Your task to perform on an android device: change the clock display to digital Image 0: 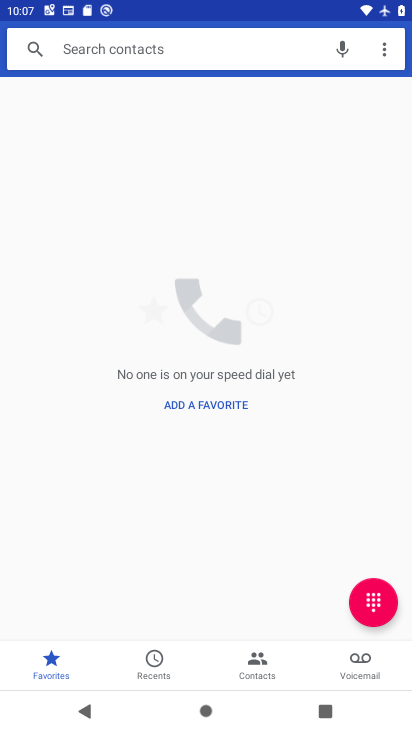
Step 0: press home button
Your task to perform on an android device: change the clock display to digital Image 1: 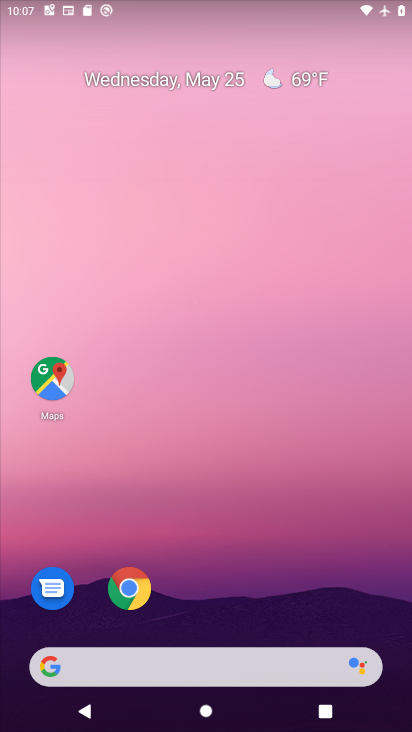
Step 1: drag from (377, 610) to (373, 187)
Your task to perform on an android device: change the clock display to digital Image 2: 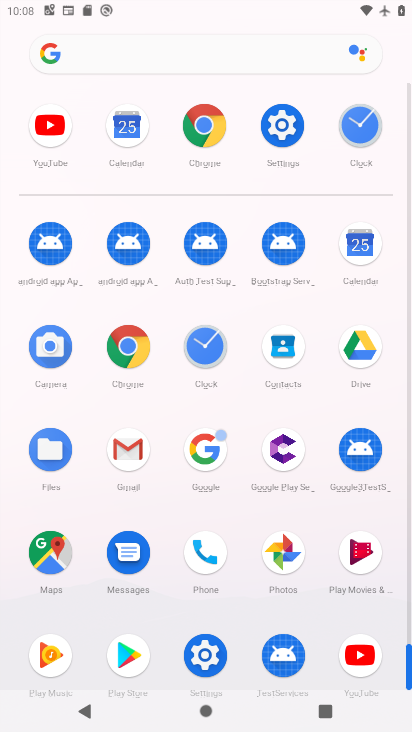
Step 2: click (215, 356)
Your task to perform on an android device: change the clock display to digital Image 3: 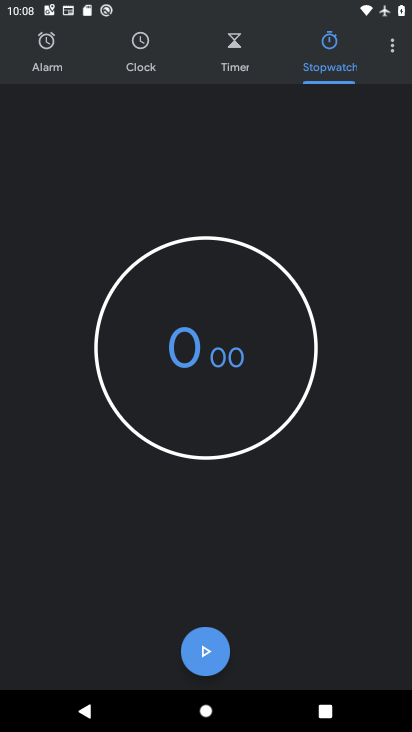
Step 3: click (394, 50)
Your task to perform on an android device: change the clock display to digital Image 4: 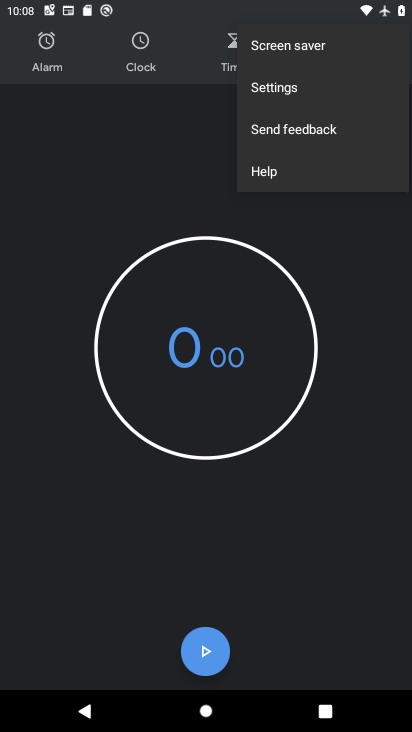
Step 4: click (303, 89)
Your task to perform on an android device: change the clock display to digital Image 5: 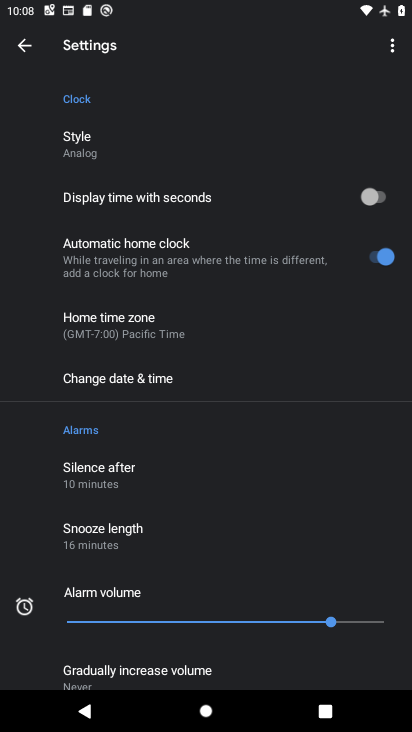
Step 5: drag from (315, 387) to (320, 345)
Your task to perform on an android device: change the clock display to digital Image 6: 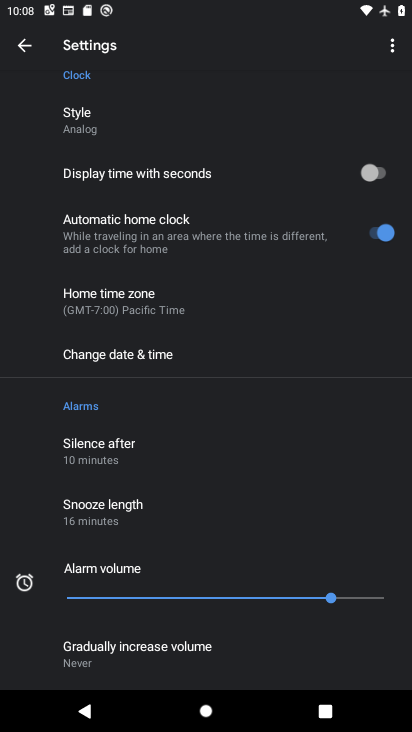
Step 6: drag from (320, 431) to (337, 342)
Your task to perform on an android device: change the clock display to digital Image 7: 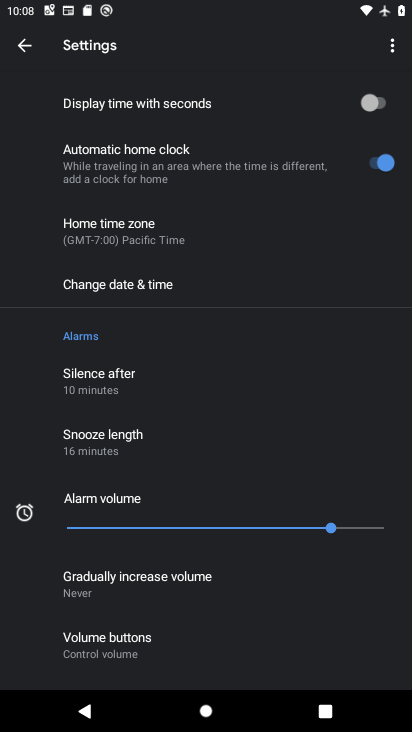
Step 7: drag from (331, 424) to (324, 322)
Your task to perform on an android device: change the clock display to digital Image 8: 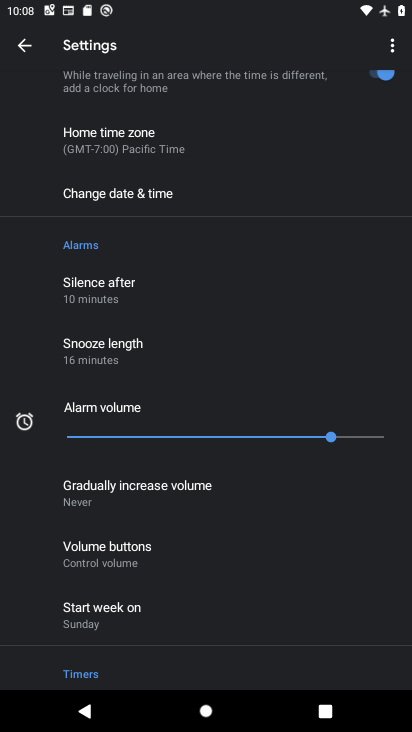
Step 8: drag from (318, 533) to (337, 351)
Your task to perform on an android device: change the clock display to digital Image 9: 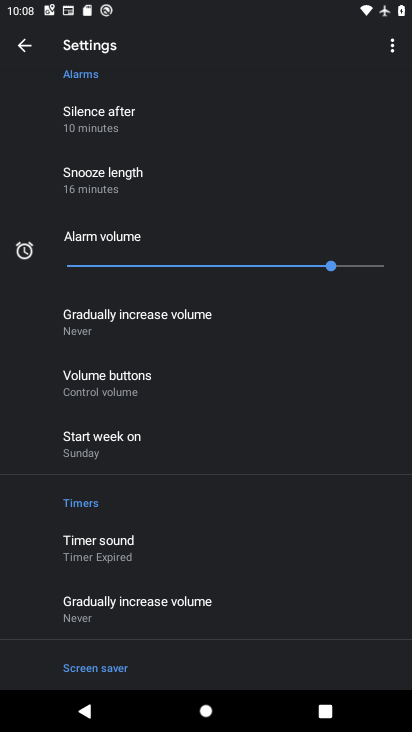
Step 9: drag from (355, 451) to (373, 379)
Your task to perform on an android device: change the clock display to digital Image 10: 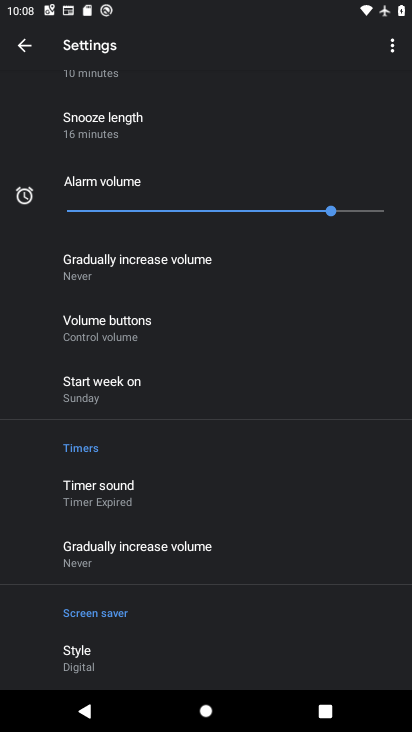
Step 10: drag from (372, 466) to (367, 366)
Your task to perform on an android device: change the clock display to digital Image 11: 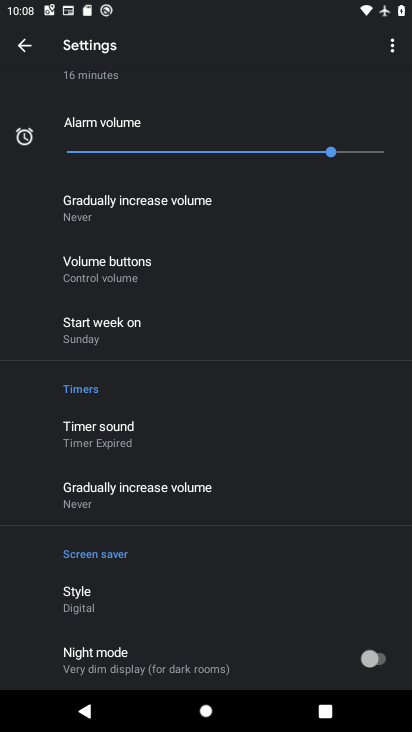
Step 11: drag from (367, 273) to (349, 353)
Your task to perform on an android device: change the clock display to digital Image 12: 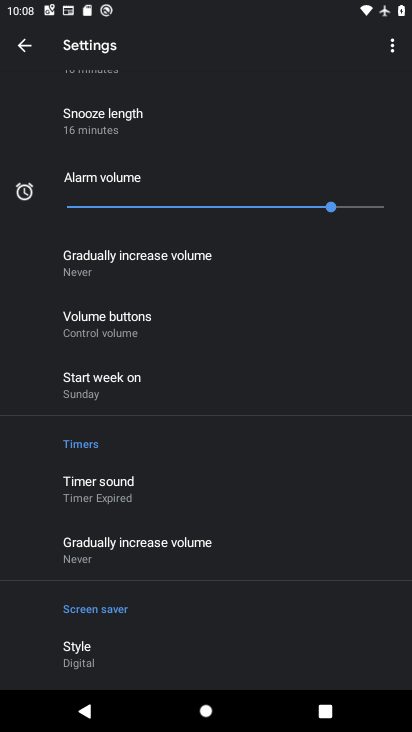
Step 12: drag from (359, 258) to (353, 323)
Your task to perform on an android device: change the clock display to digital Image 13: 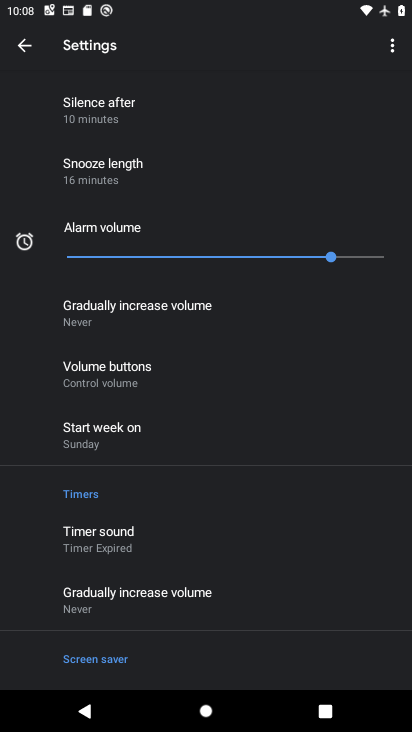
Step 13: drag from (362, 204) to (361, 286)
Your task to perform on an android device: change the clock display to digital Image 14: 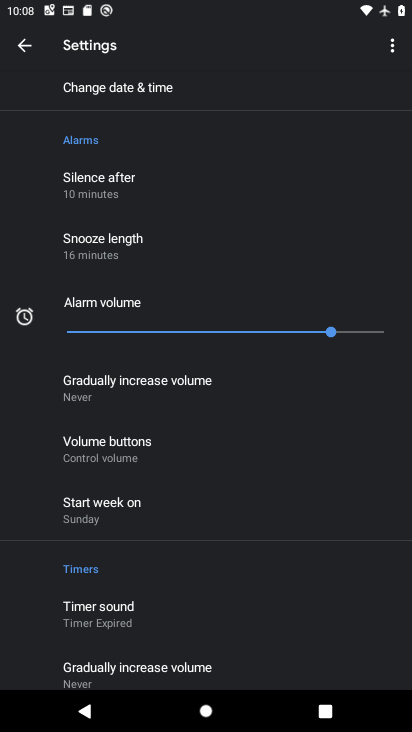
Step 14: drag from (371, 199) to (371, 288)
Your task to perform on an android device: change the clock display to digital Image 15: 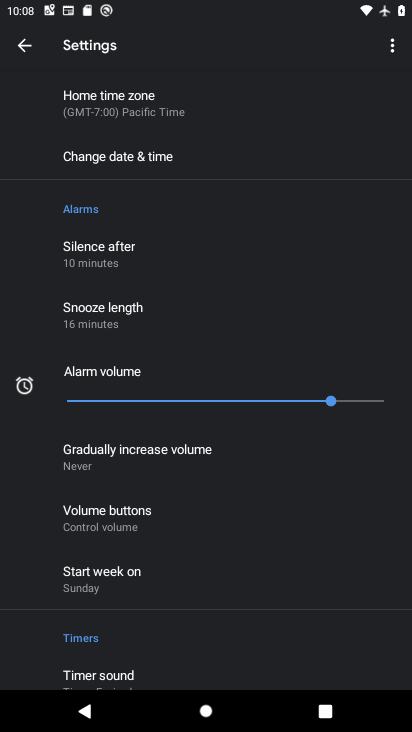
Step 15: drag from (365, 234) to (357, 291)
Your task to perform on an android device: change the clock display to digital Image 16: 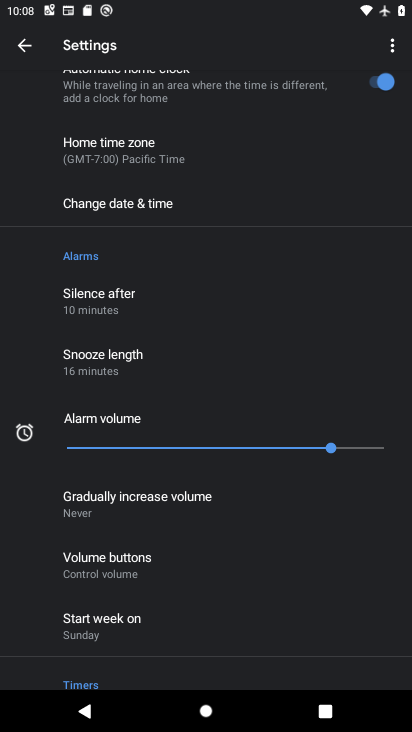
Step 16: drag from (349, 198) to (344, 274)
Your task to perform on an android device: change the clock display to digital Image 17: 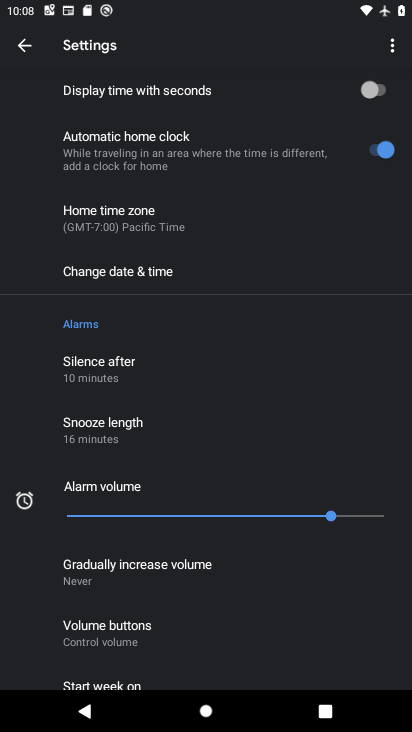
Step 17: drag from (346, 211) to (323, 347)
Your task to perform on an android device: change the clock display to digital Image 18: 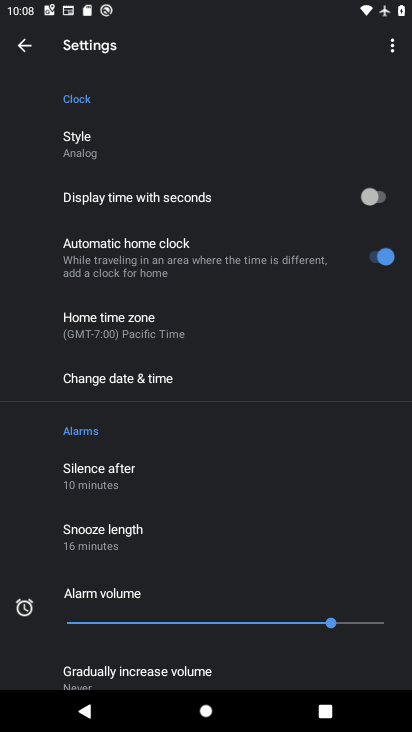
Step 18: drag from (332, 173) to (301, 319)
Your task to perform on an android device: change the clock display to digital Image 19: 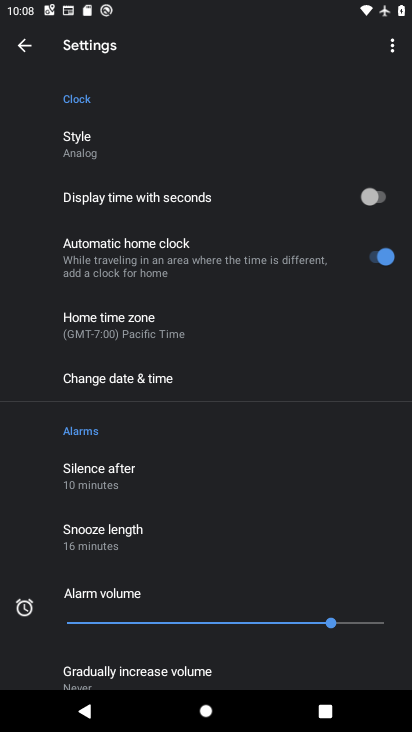
Step 19: click (128, 137)
Your task to perform on an android device: change the clock display to digital Image 20: 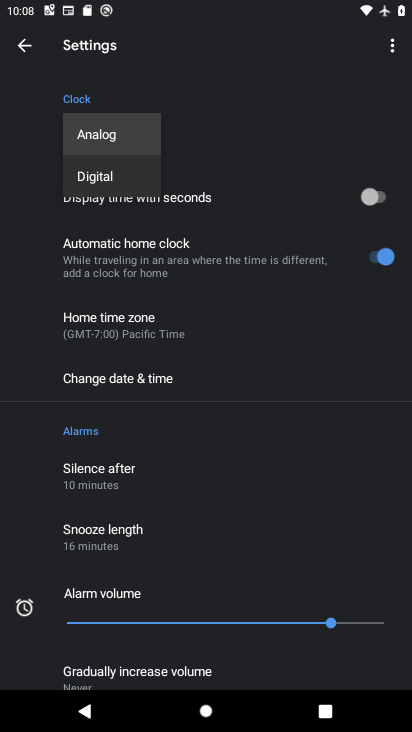
Step 20: click (122, 168)
Your task to perform on an android device: change the clock display to digital Image 21: 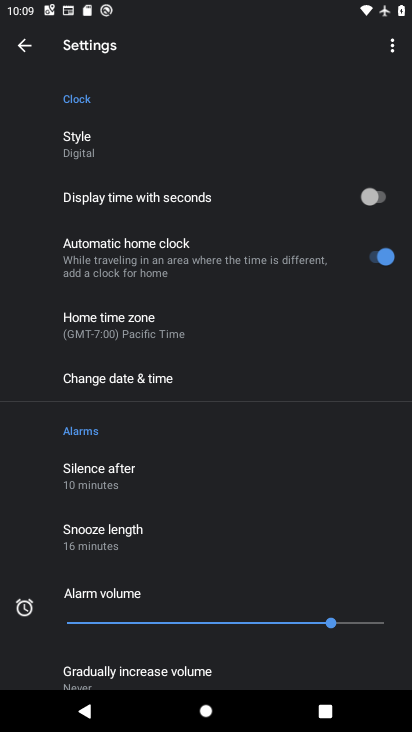
Step 21: task complete